Your task to perform on an android device: turn on wifi Image 0: 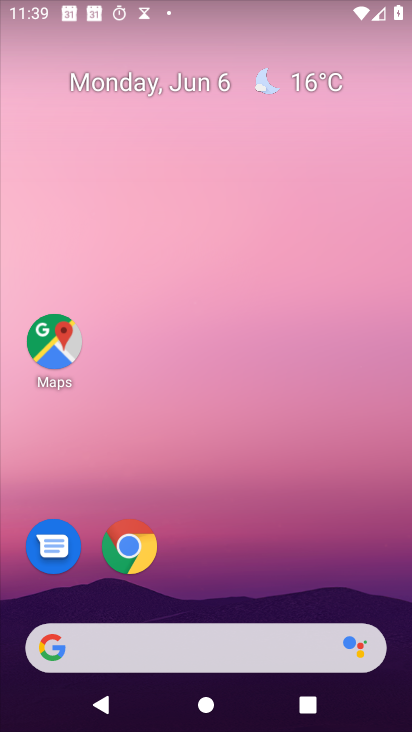
Step 0: drag from (195, 599) to (249, 278)
Your task to perform on an android device: turn on wifi Image 1: 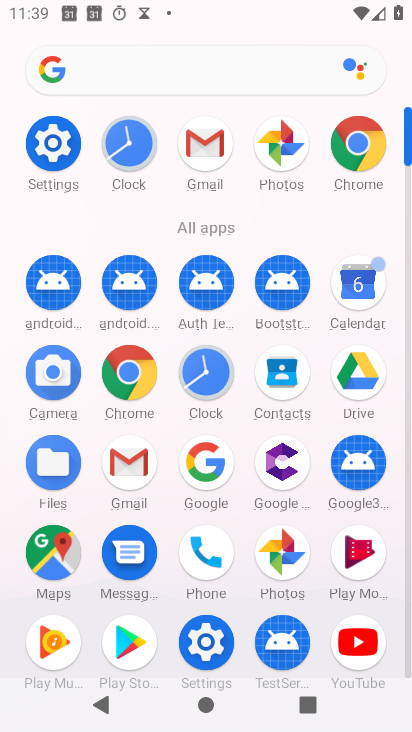
Step 1: click (63, 158)
Your task to perform on an android device: turn on wifi Image 2: 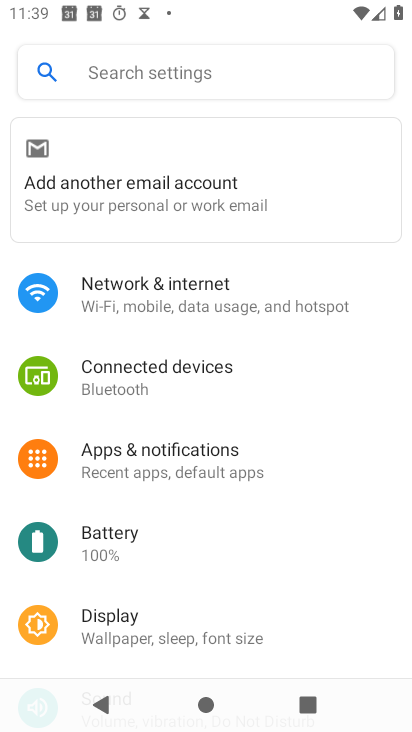
Step 2: click (189, 290)
Your task to perform on an android device: turn on wifi Image 3: 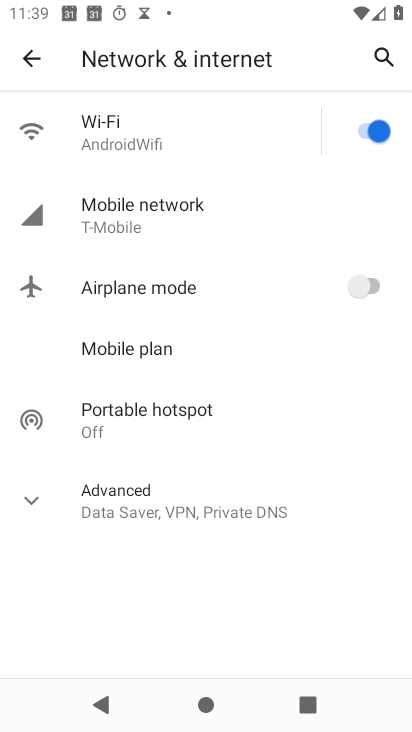
Step 3: task complete